Your task to perform on an android device: Open internet settings Image 0: 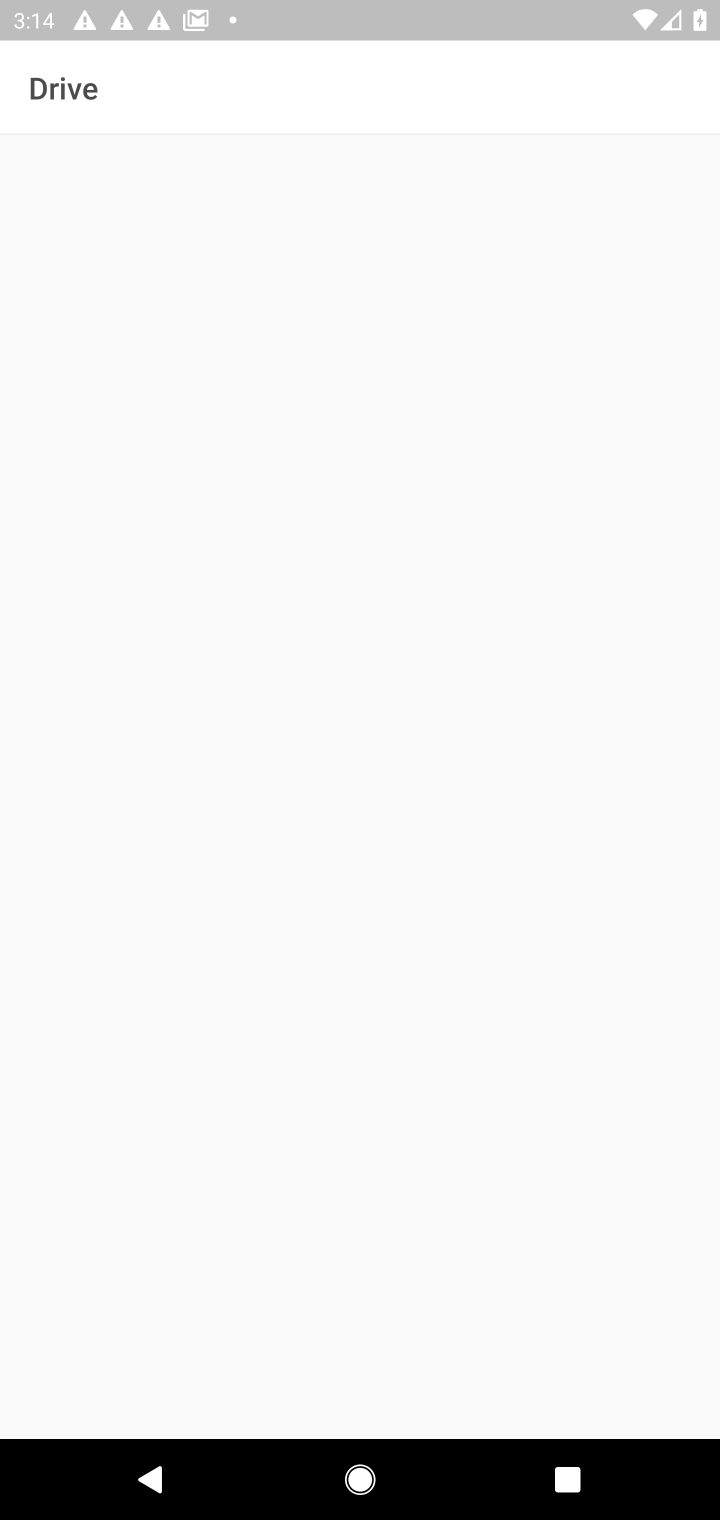
Step 0: press home button
Your task to perform on an android device: Open internet settings Image 1: 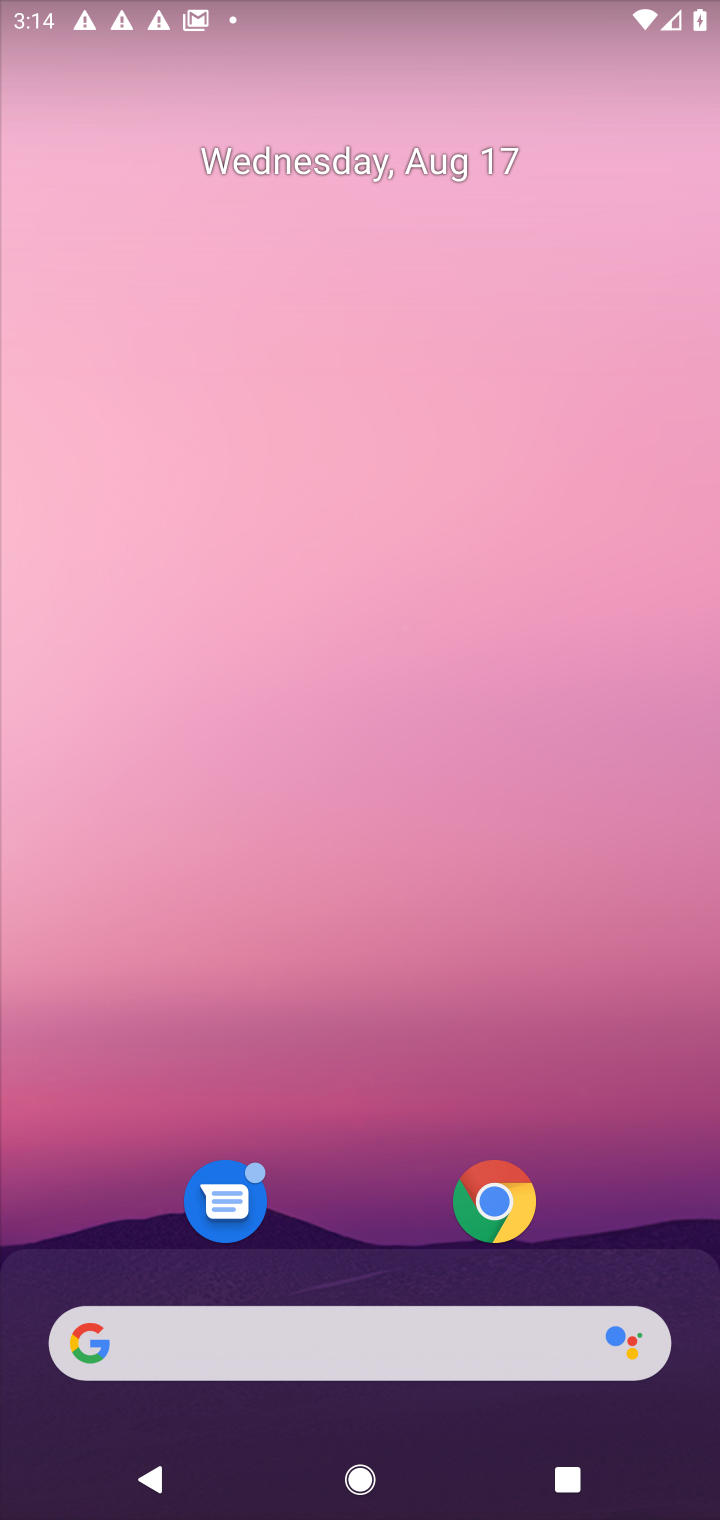
Step 1: drag from (312, 1016) to (204, 25)
Your task to perform on an android device: Open internet settings Image 2: 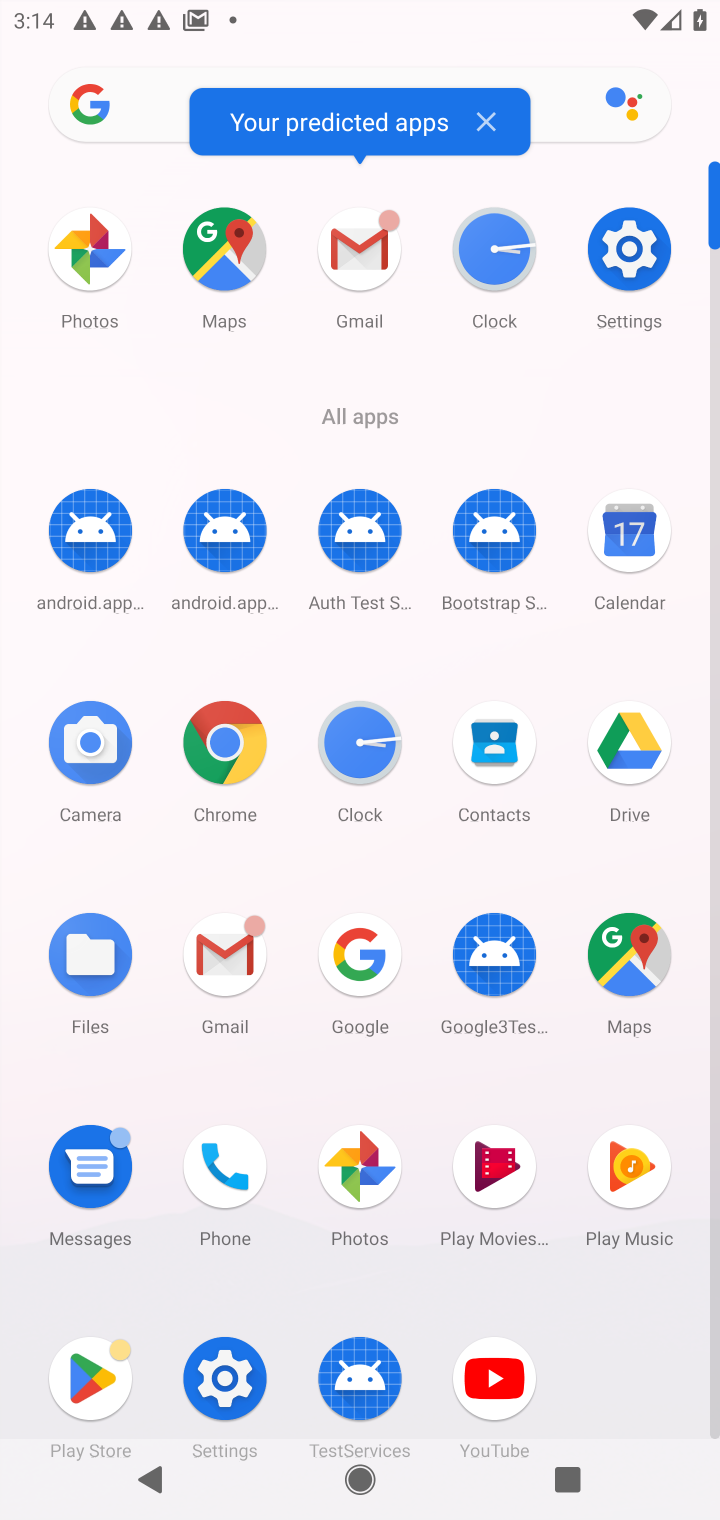
Step 2: click (214, 1386)
Your task to perform on an android device: Open internet settings Image 3: 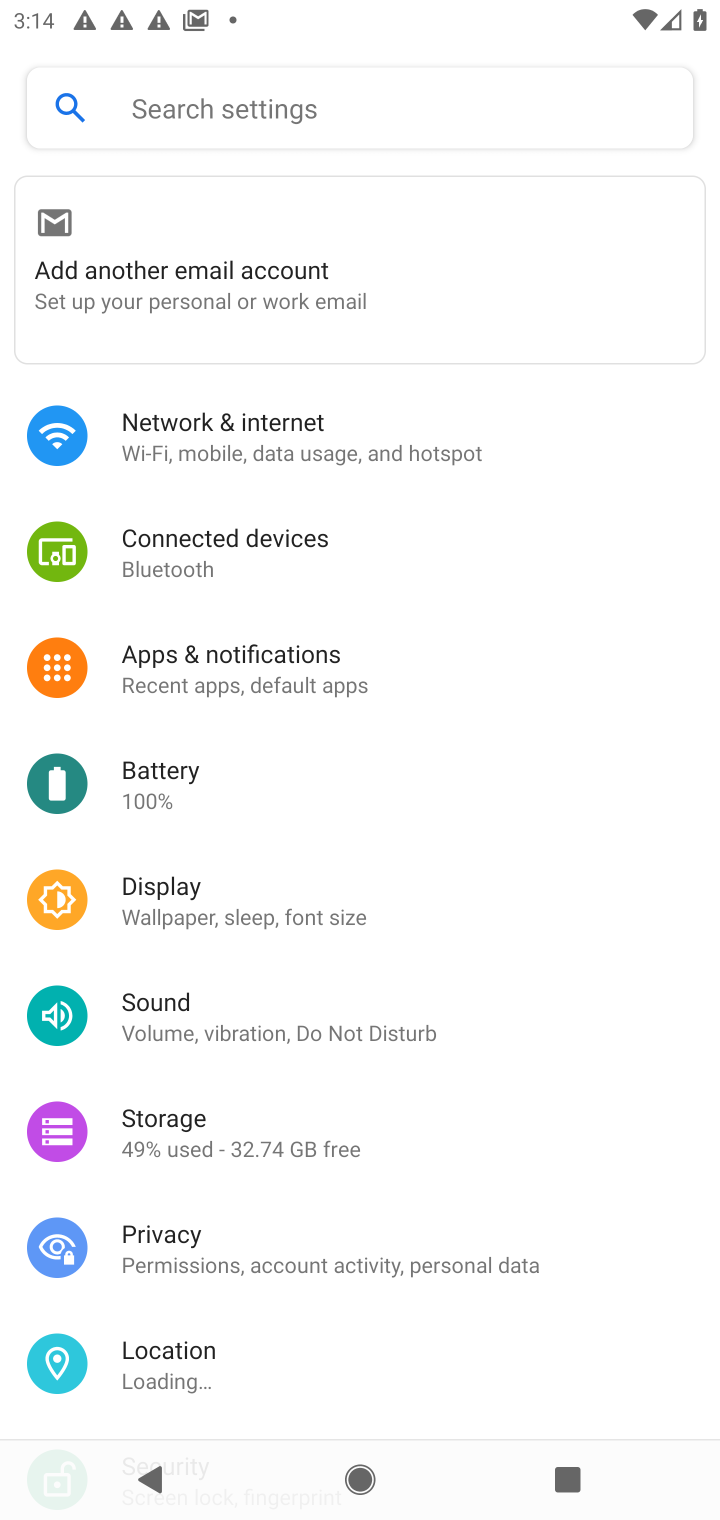
Step 3: click (276, 439)
Your task to perform on an android device: Open internet settings Image 4: 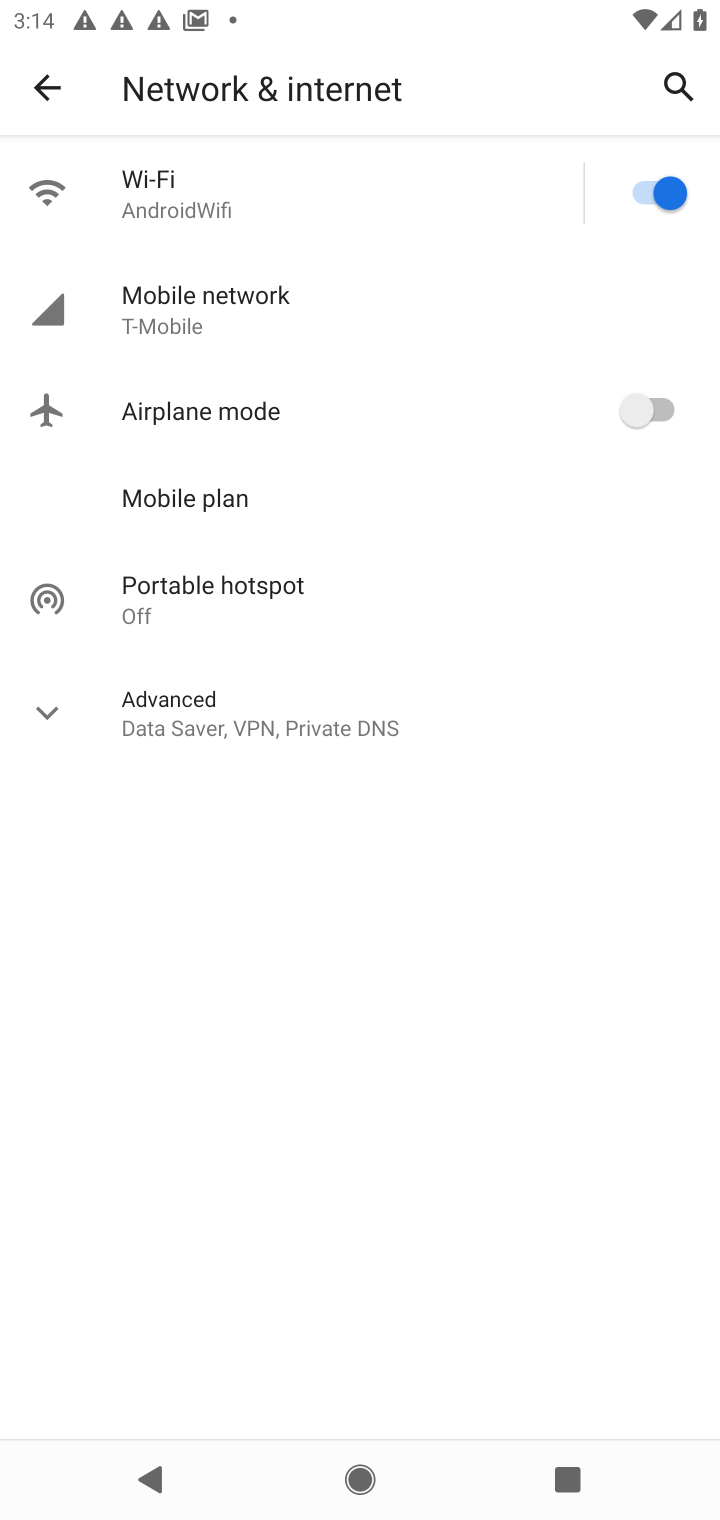
Step 4: task complete